Your task to perform on an android device: open app "Spotify: Music and Podcasts" (install if not already installed) Image 0: 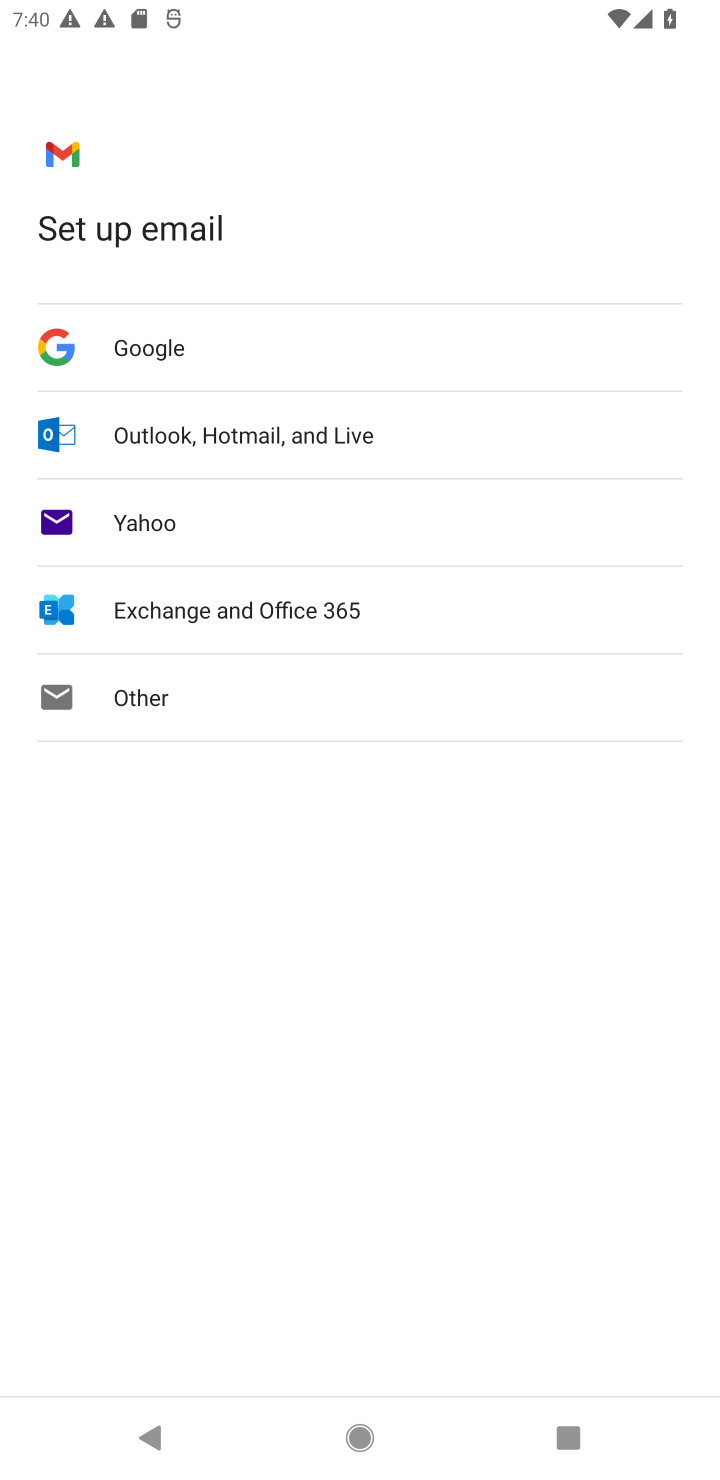
Step 0: press home button
Your task to perform on an android device: open app "Spotify: Music and Podcasts" (install if not already installed) Image 1: 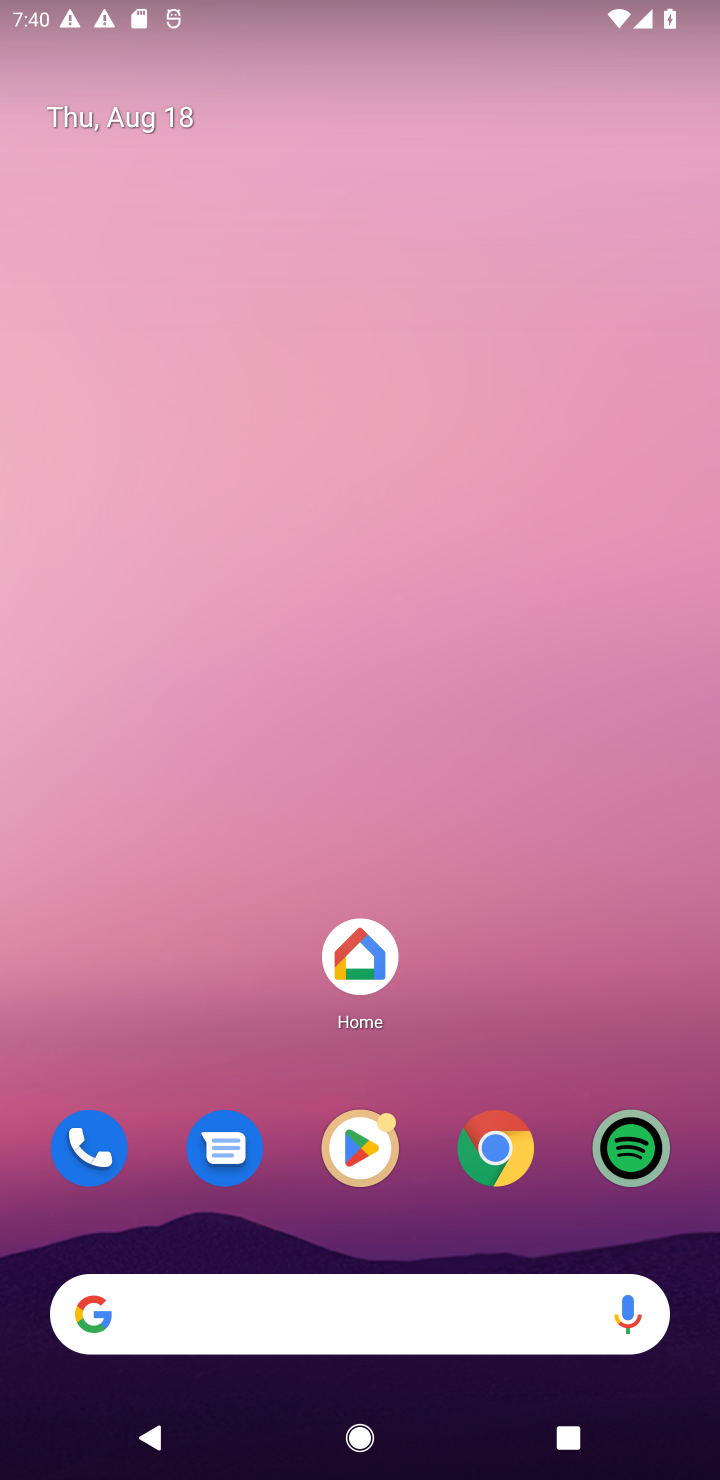
Step 1: drag from (243, 734) to (346, 116)
Your task to perform on an android device: open app "Spotify: Music and Podcasts" (install if not already installed) Image 2: 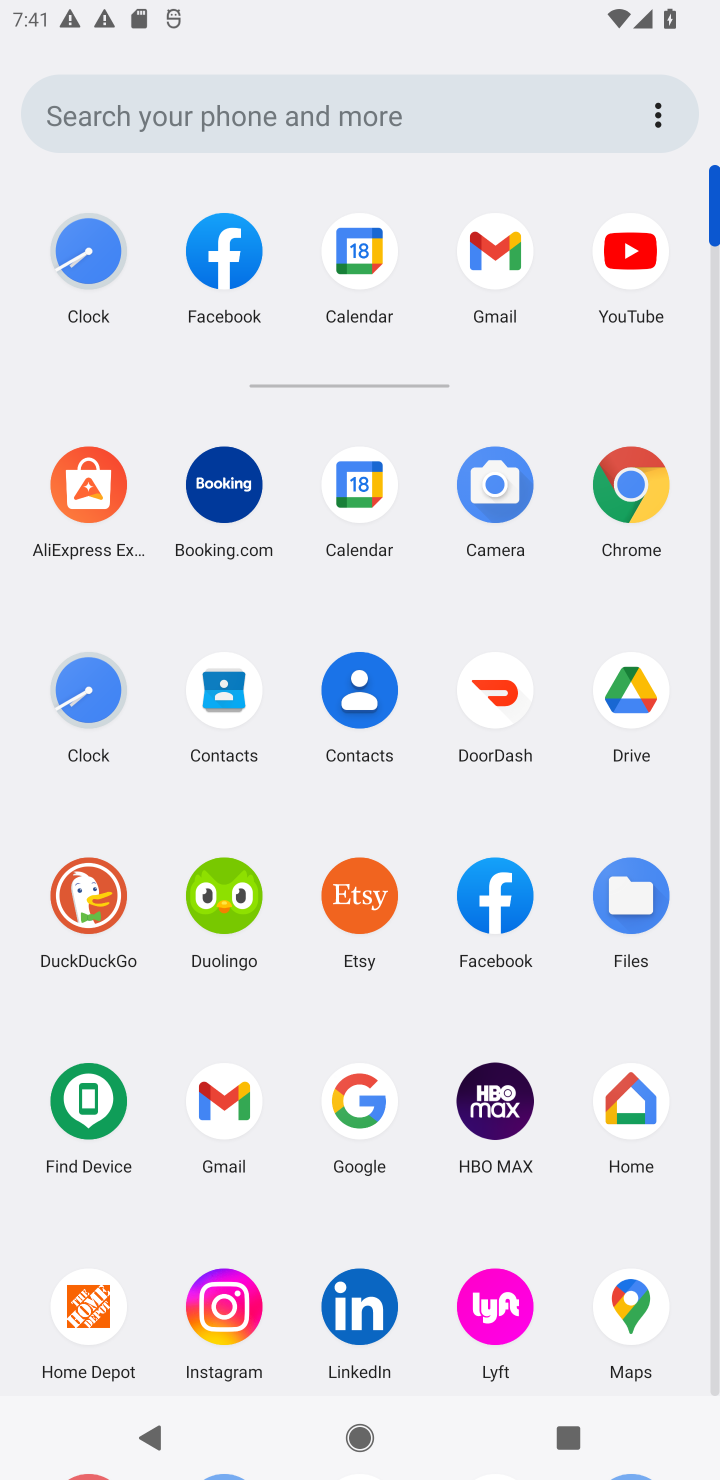
Step 2: drag from (447, 1192) to (563, 380)
Your task to perform on an android device: open app "Spotify: Music and Podcasts" (install if not already installed) Image 3: 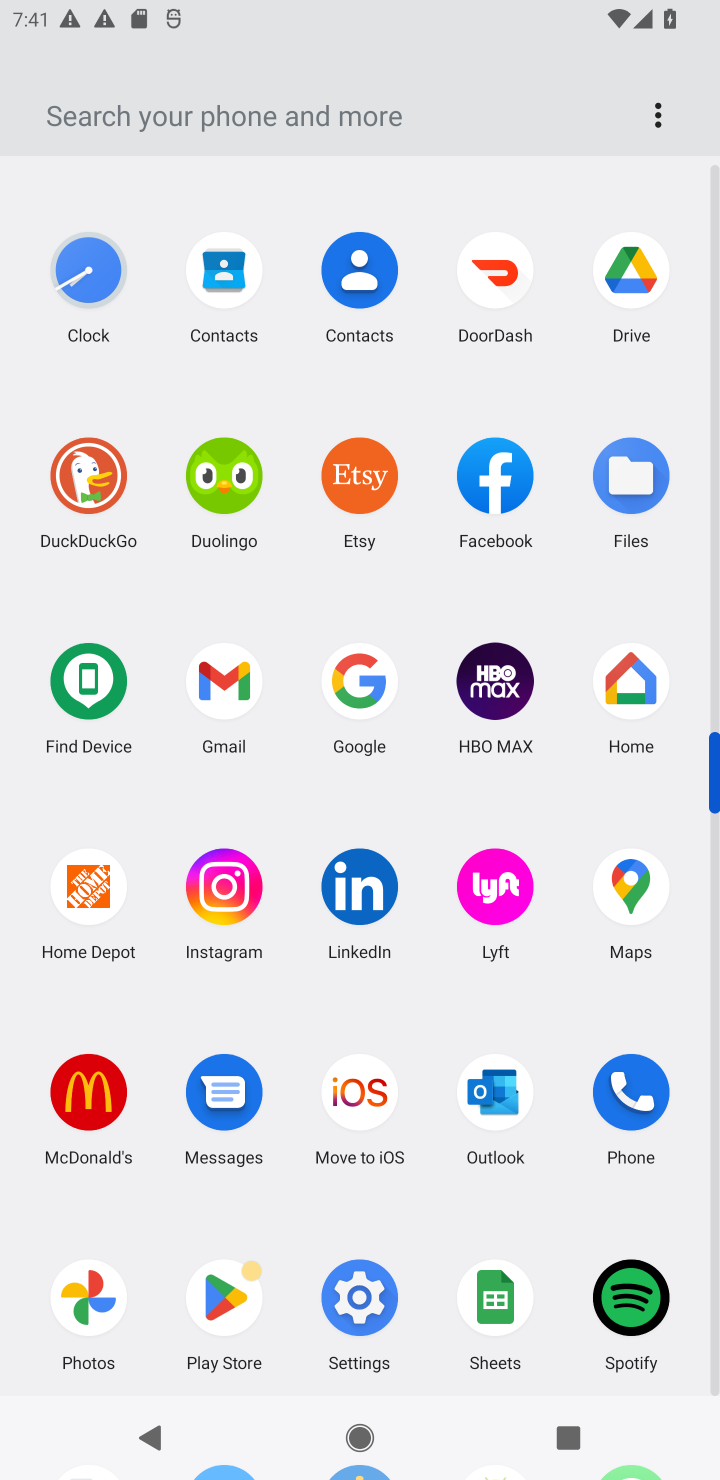
Step 3: drag from (312, 1205) to (309, 469)
Your task to perform on an android device: open app "Spotify: Music and Podcasts" (install if not already installed) Image 4: 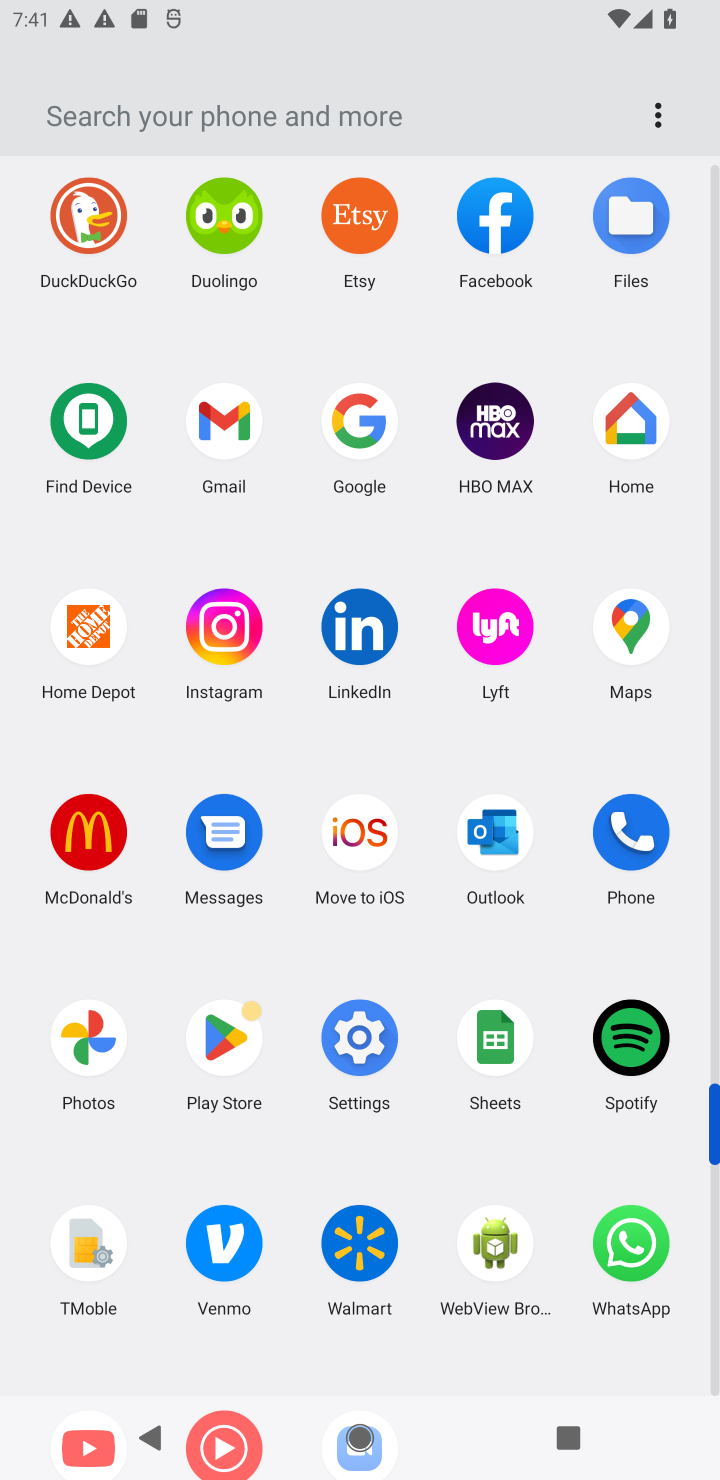
Step 4: click (218, 1050)
Your task to perform on an android device: open app "Spotify: Music and Podcasts" (install if not already installed) Image 5: 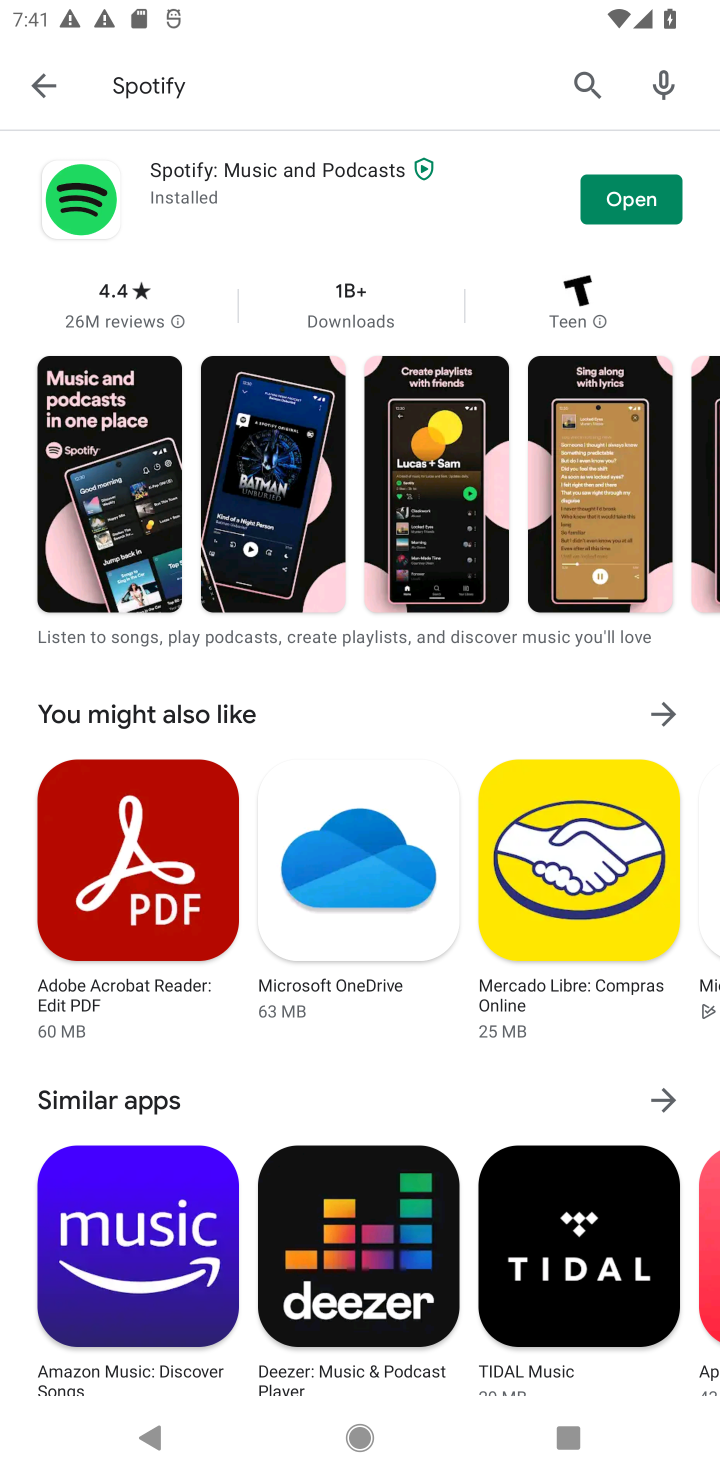
Step 5: press back button
Your task to perform on an android device: open app "Spotify: Music and Podcasts" (install if not already installed) Image 6: 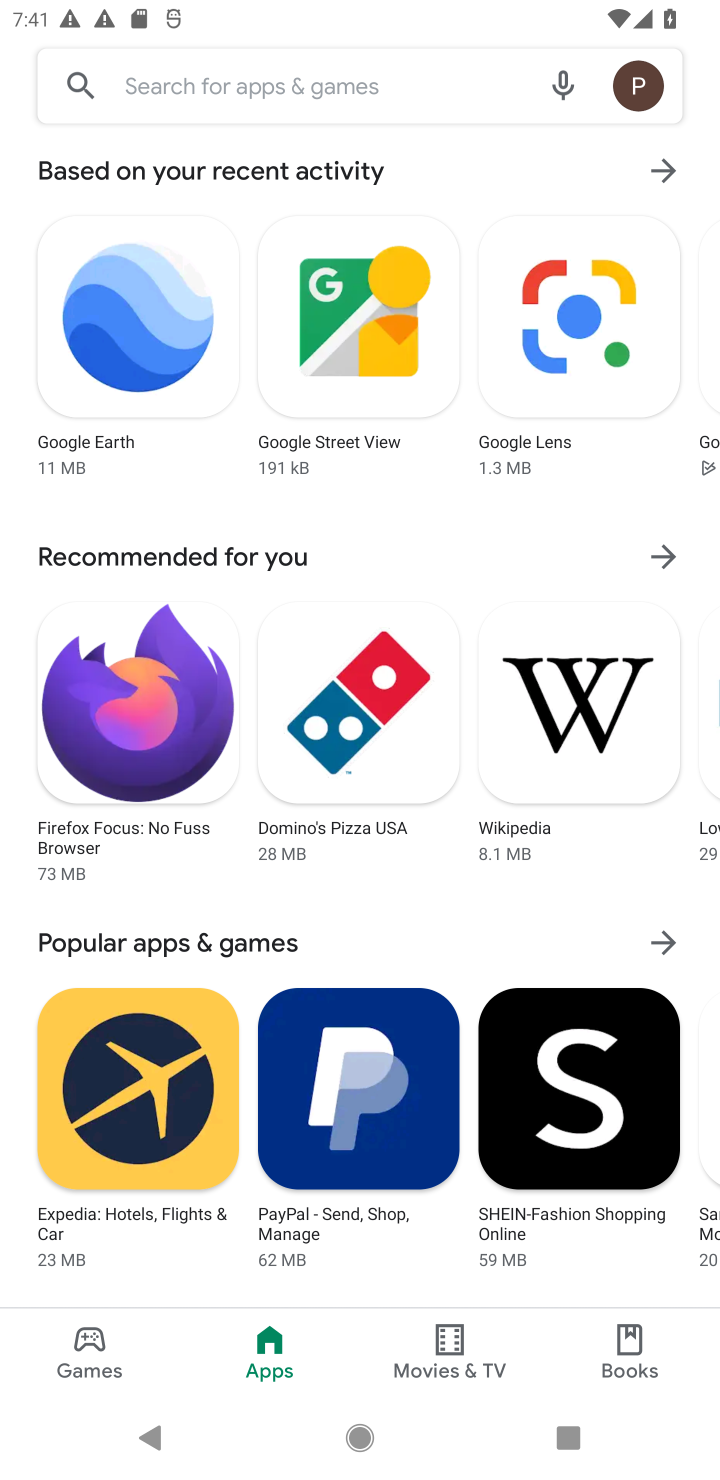
Step 6: click (361, 106)
Your task to perform on an android device: open app "Spotify: Music and Podcasts" (install if not already installed) Image 7: 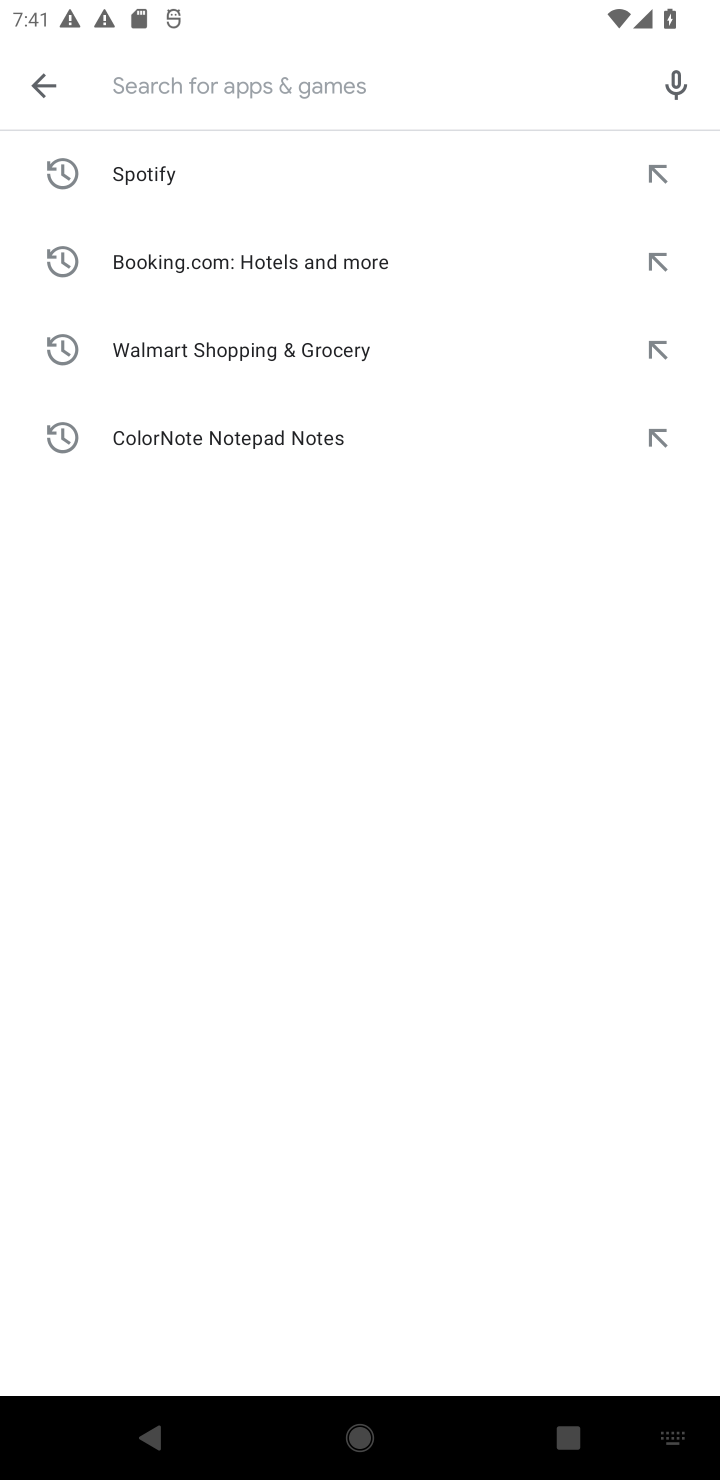
Step 7: type "Spotify: Music and Podcasts"
Your task to perform on an android device: open app "Spotify: Music and Podcasts" (install if not already installed) Image 8: 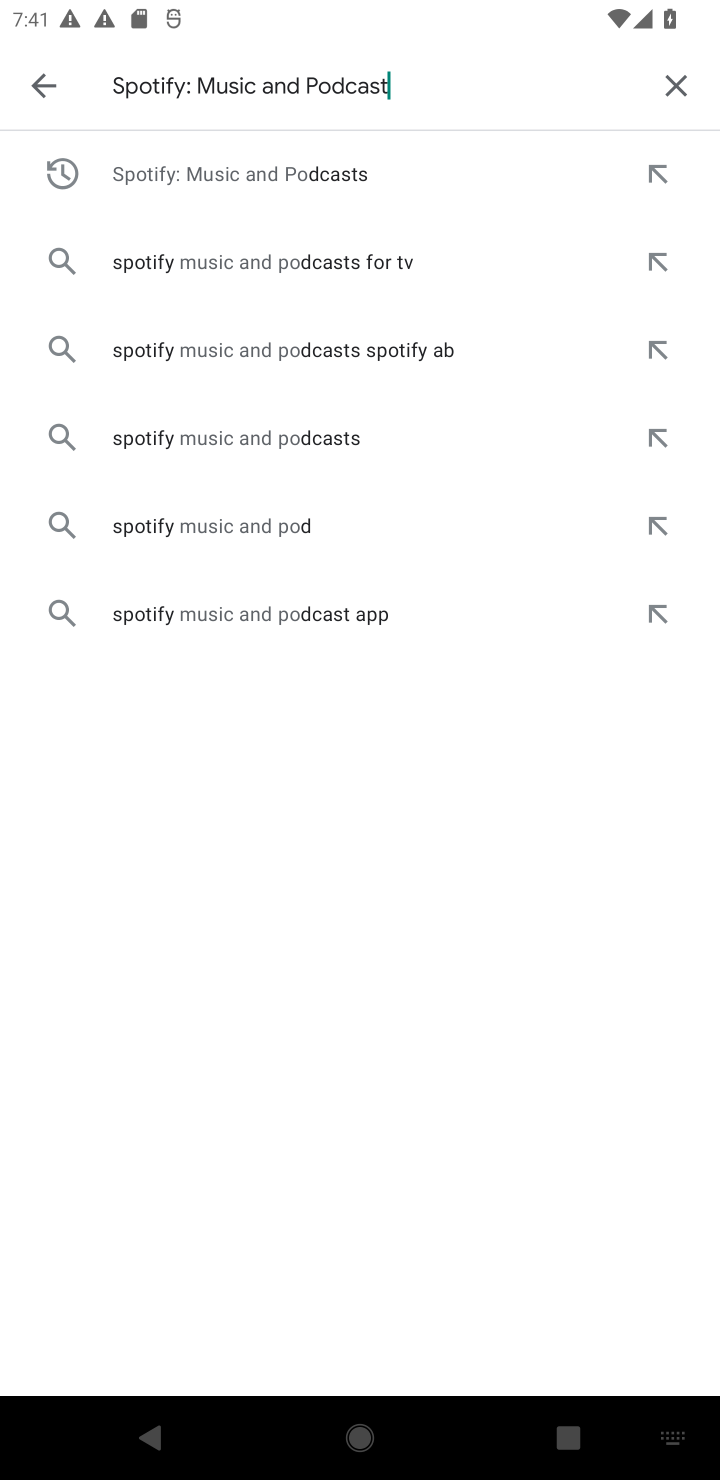
Step 8: press enter
Your task to perform on an android device: open app "Spotify: Music and Podcasts" (install if not already installed) Image 9: 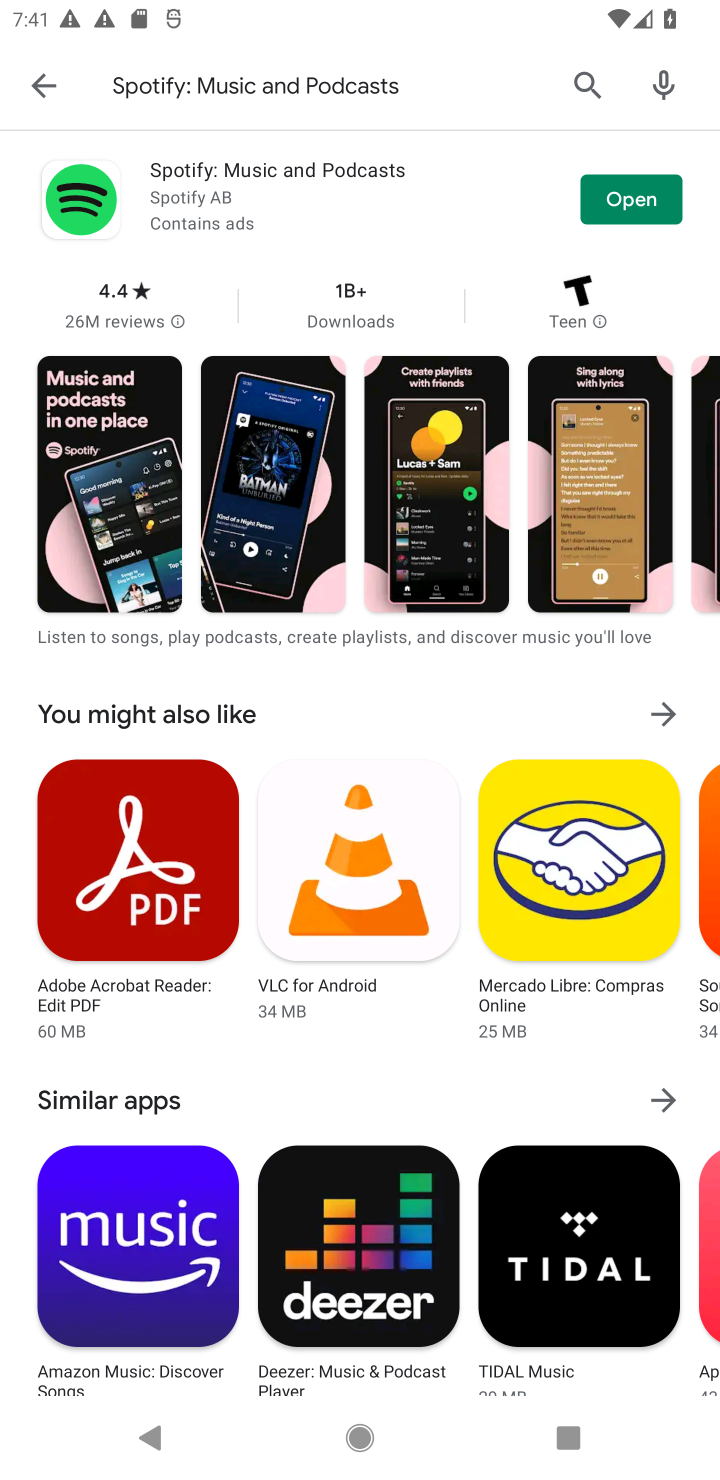
Step 9: click (647, 210)
Your task to perform on an android device: open app "Spotify: Music and Podcasts" (install if not already installed) Image 10: 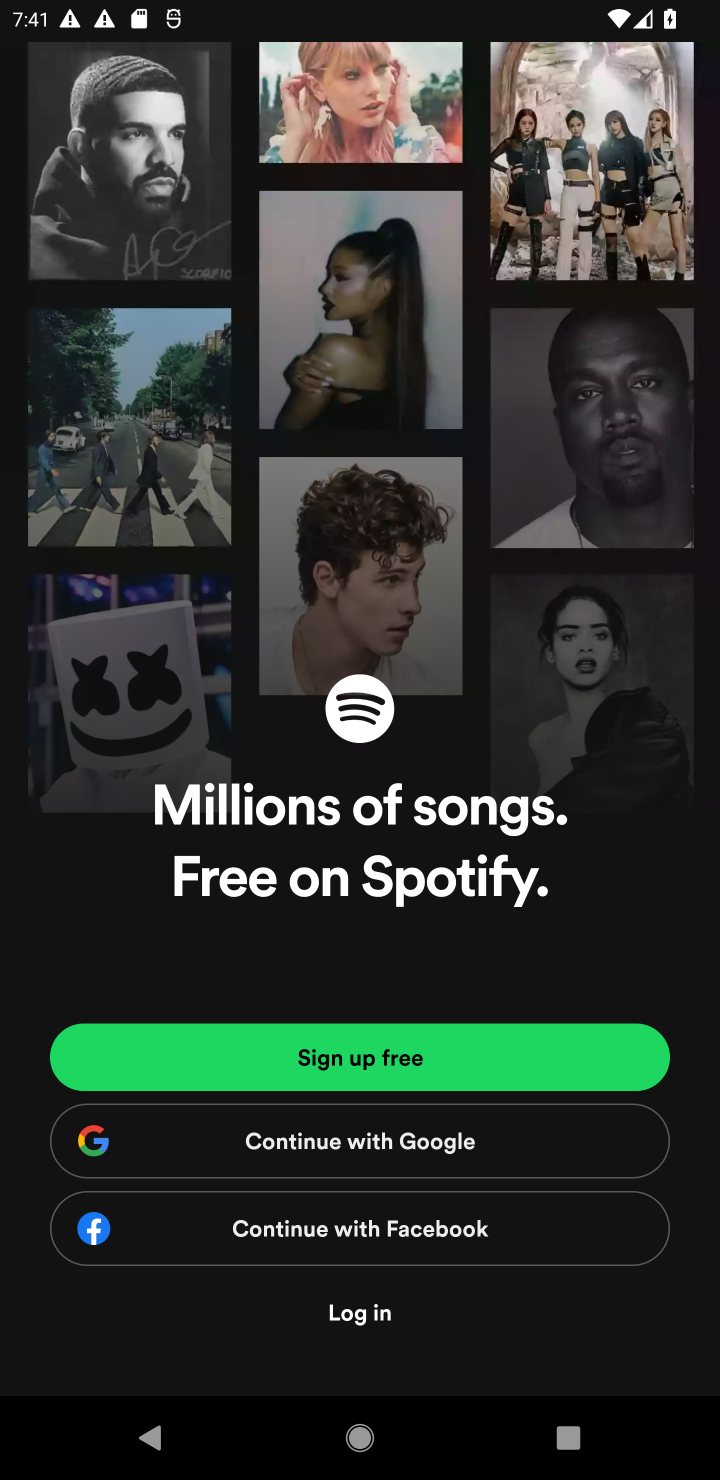
Step 10: task complete